Your task to perform on an android device: Go to CNN.com Image 0: 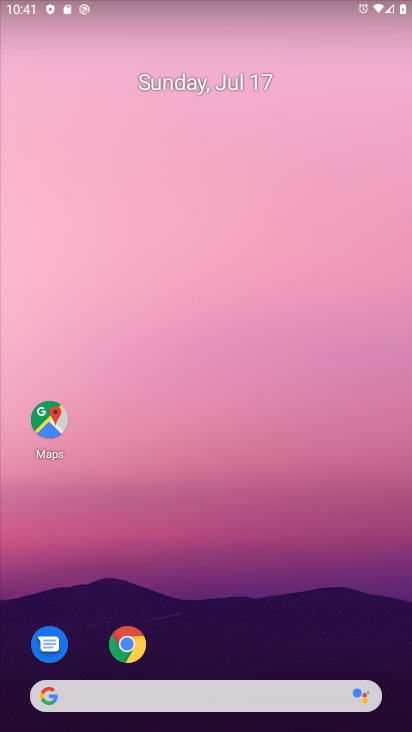
Step 0: drag from (256, 561) to (341, 32)
Your task to perform on an android device: Go to CNN.com Image 1: 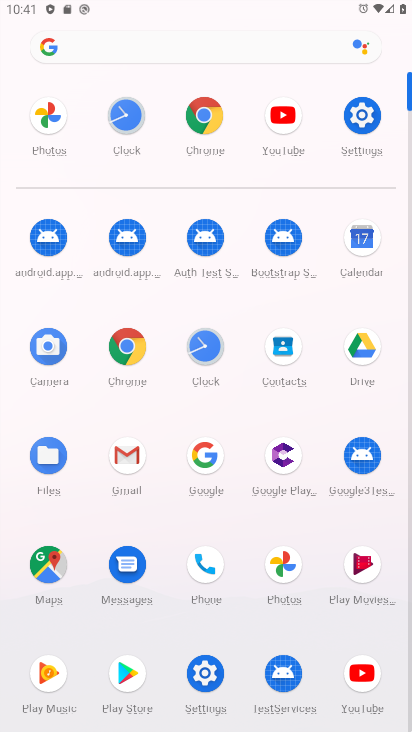
Step 1: click (203, 125)
Your task to perform on an android device: Go to CNN.com Image 2: 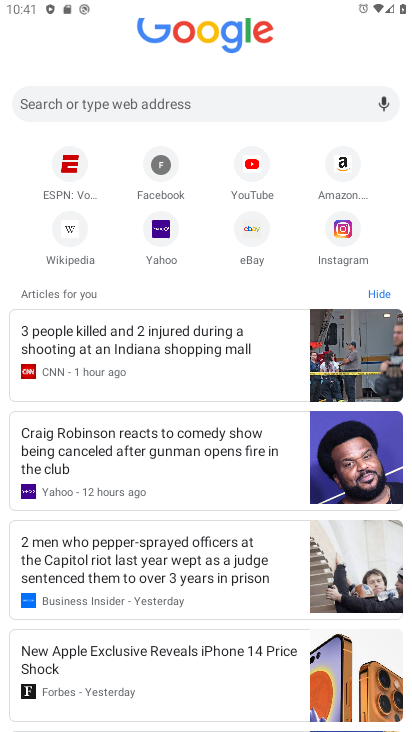
Step 2: drag from (146, 464) to (194, 685)
Your task to perform on an android device: Go to CNN.com Image 3: 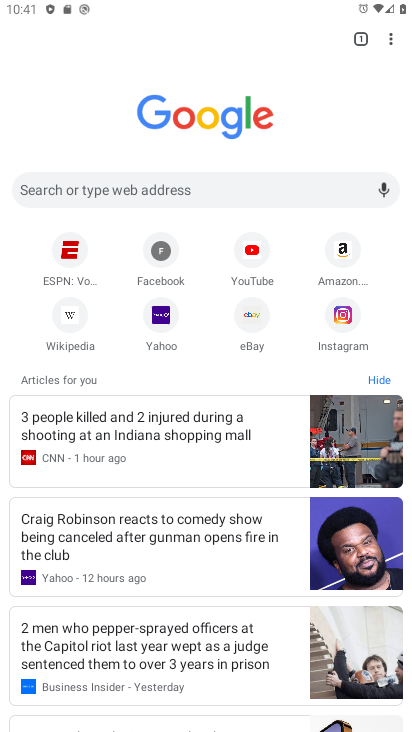
Step 3: click (149, 187)
Your task to perform on an android device: Go to CNN.com Image 4: 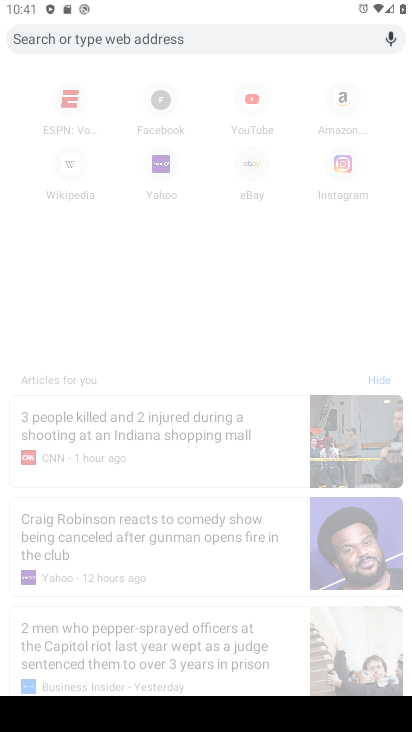
Step 4: type "CNN.com"
Your task to perform on an android device: Go to CNN.com Image 5: 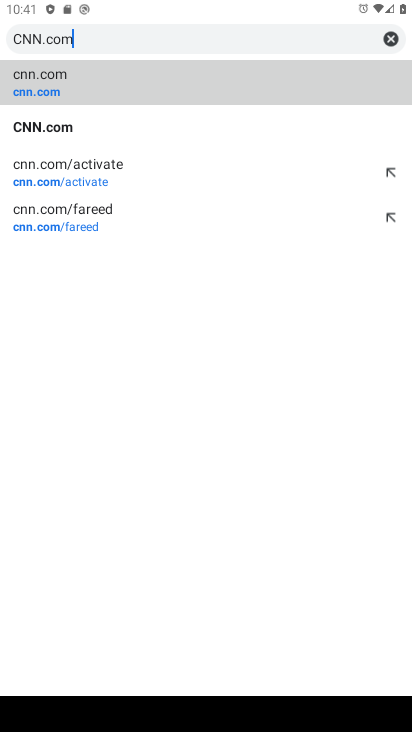
Step 5: press enter
Your task to perform on an android device: Go to CNN.com Image 6: 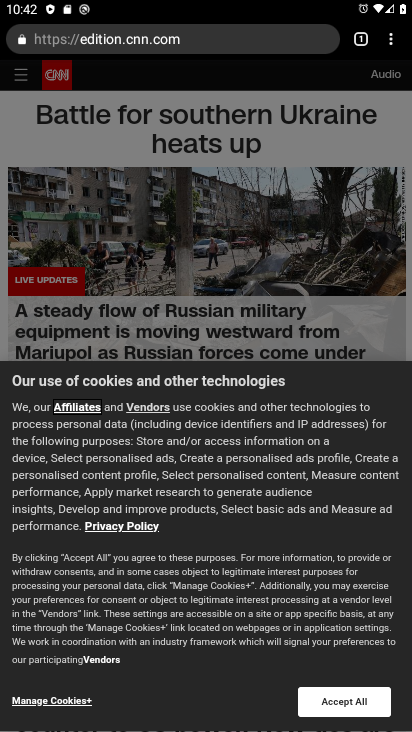
Step 6: task complete